Your task to perform on an android device: open app "Microsoft Outlook" (install if not already installed) Image 0: 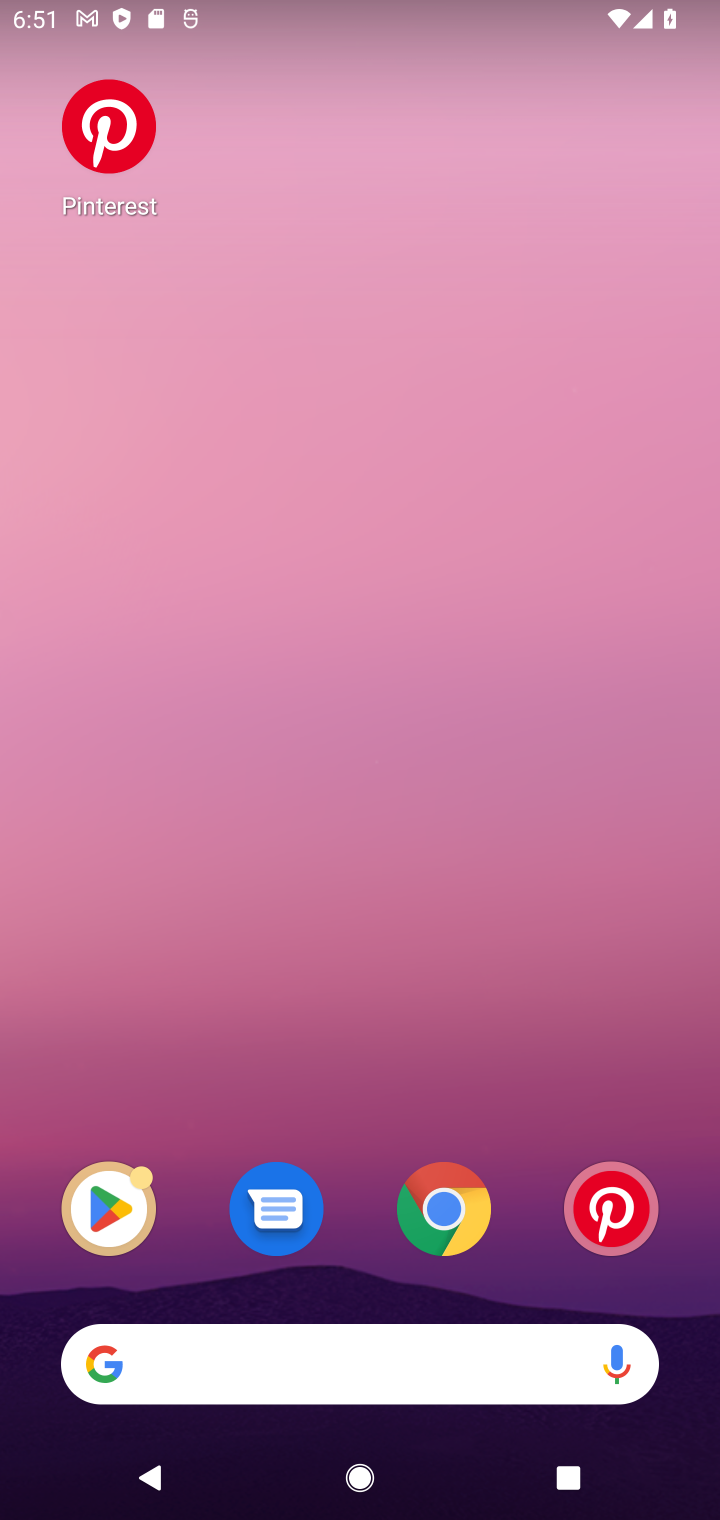
Step 0: drag from (392, 1274) to (370, 257)
Your task to perform on an android device: open app "Microsoft Outlook" (install if not already installed) Image 1: 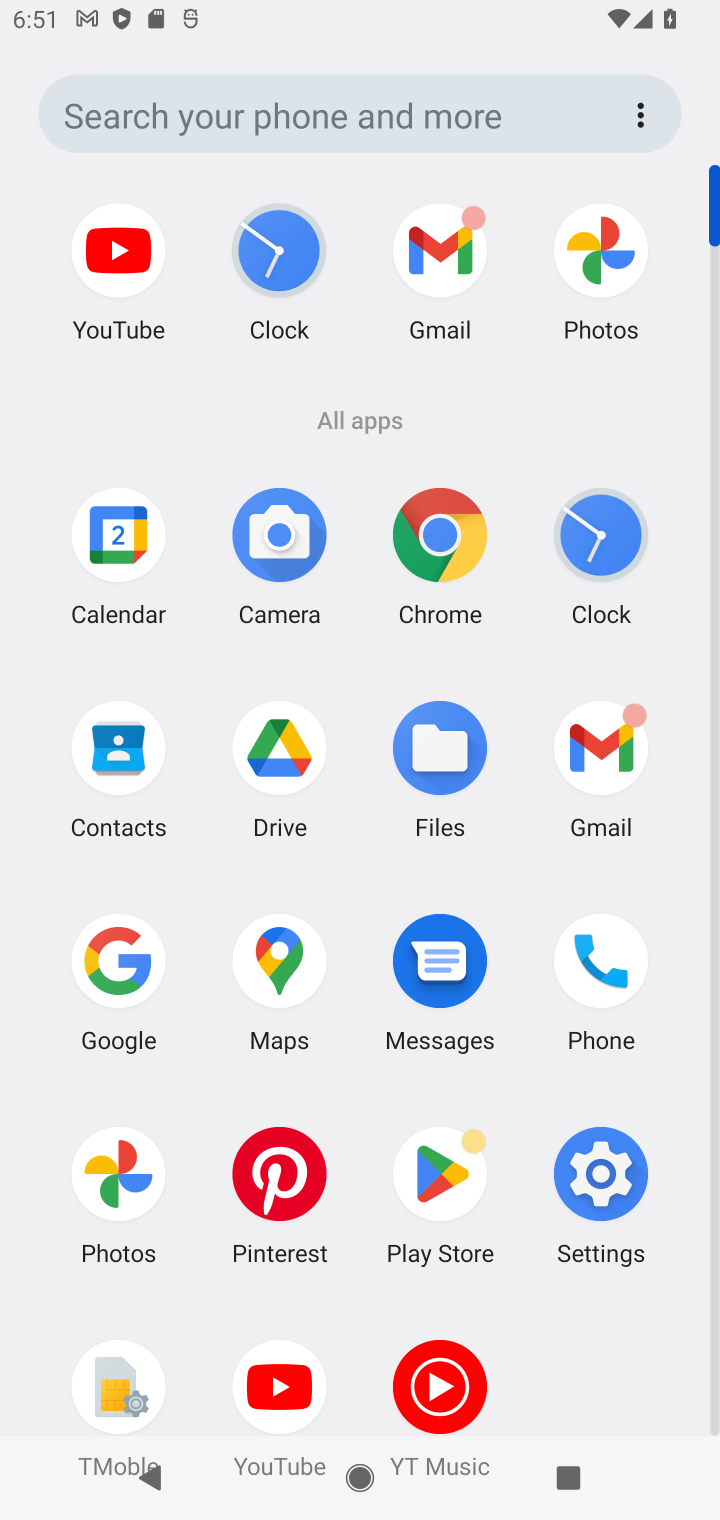
Step 1: click (445, 1189)
Your task to perform on an android device: open app "Microsoft Outlook" (install if not already installed) Image 2: 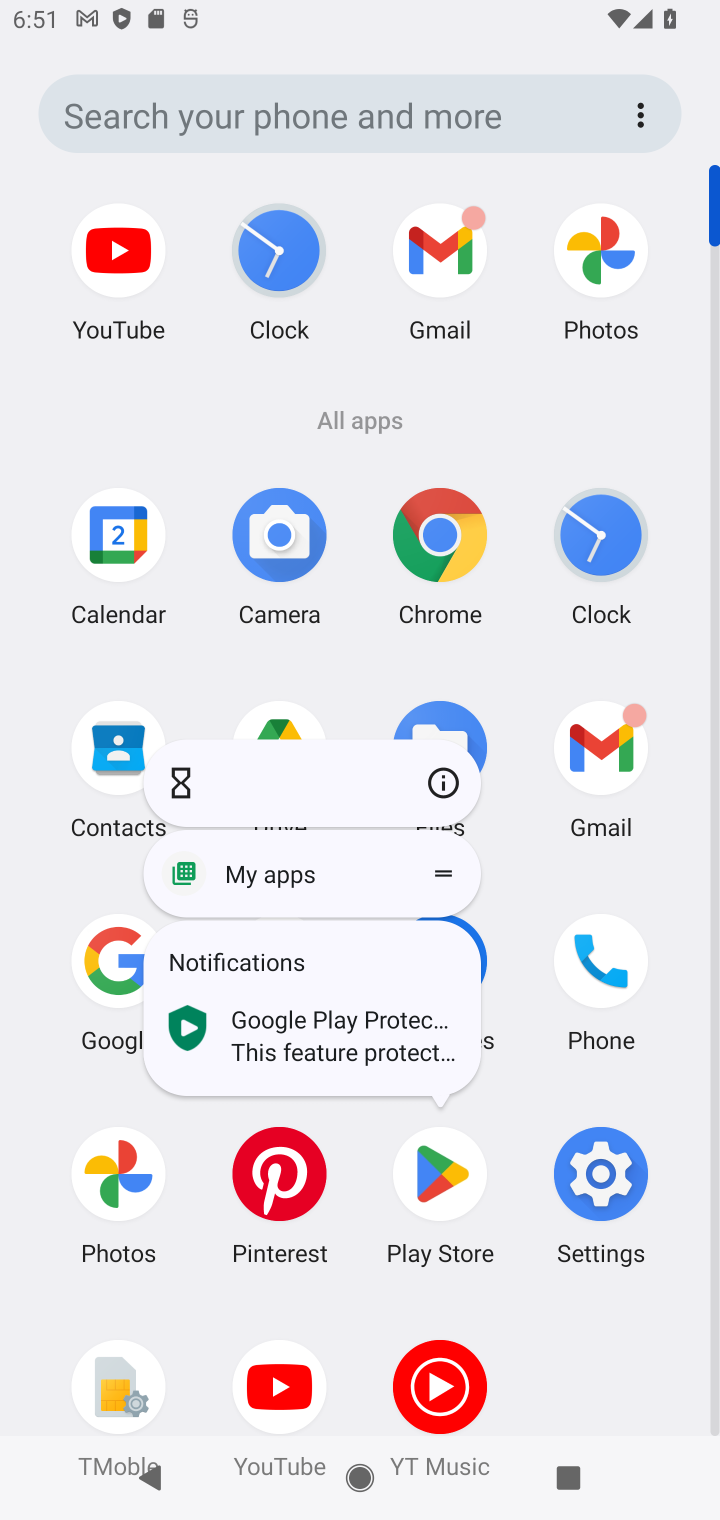
Step 2: click (424, 1190)
Your task to perform on an android device: open app "Microsoft Outlook" (install if not already installed) Image 3: 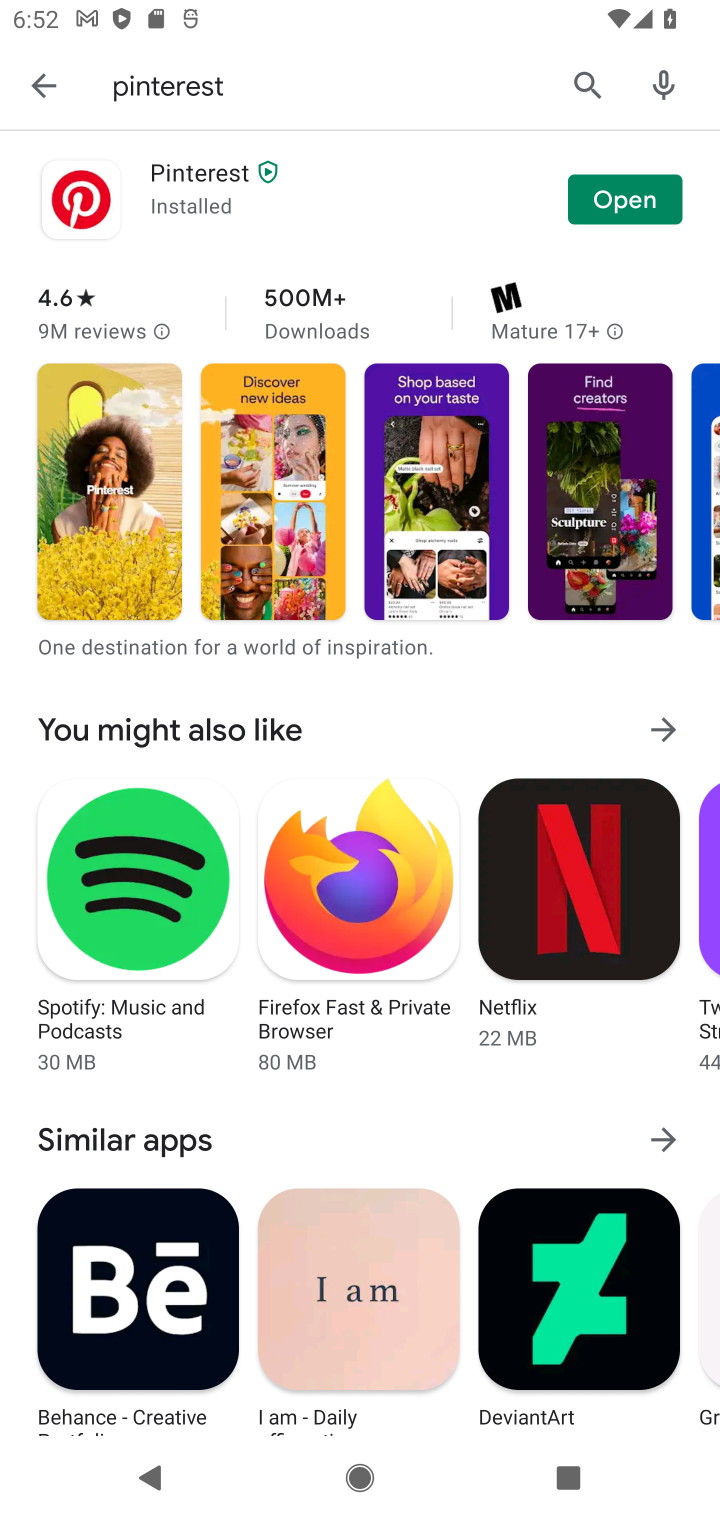
Step 3: click (585, 88)
Your task to perform on an android device: open app "Microsoft Outlook" (install if not already installed) Image 4: 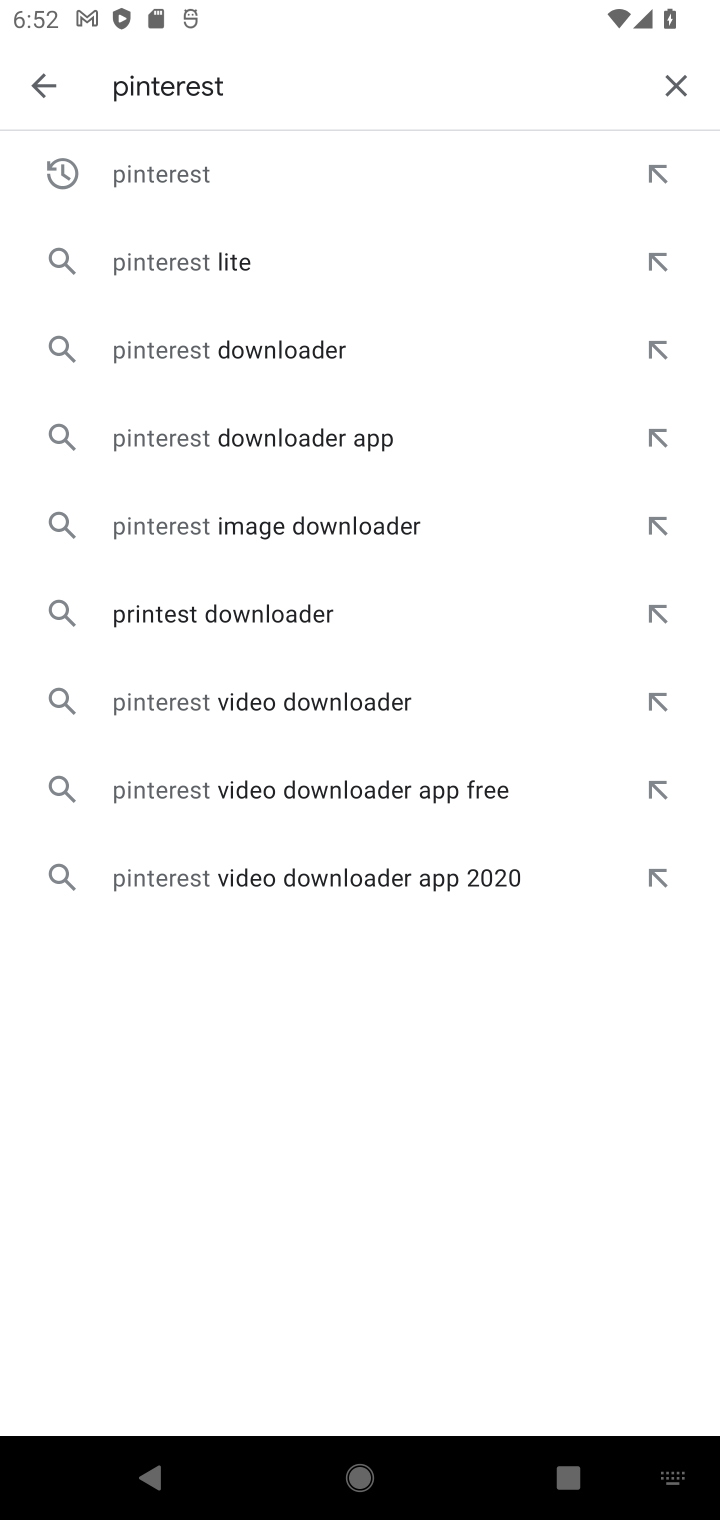
Step 4: click (675, 70)
Your task to perform on an android device: open app "Microsoft Outlook" (install if not already installed) Image 5: 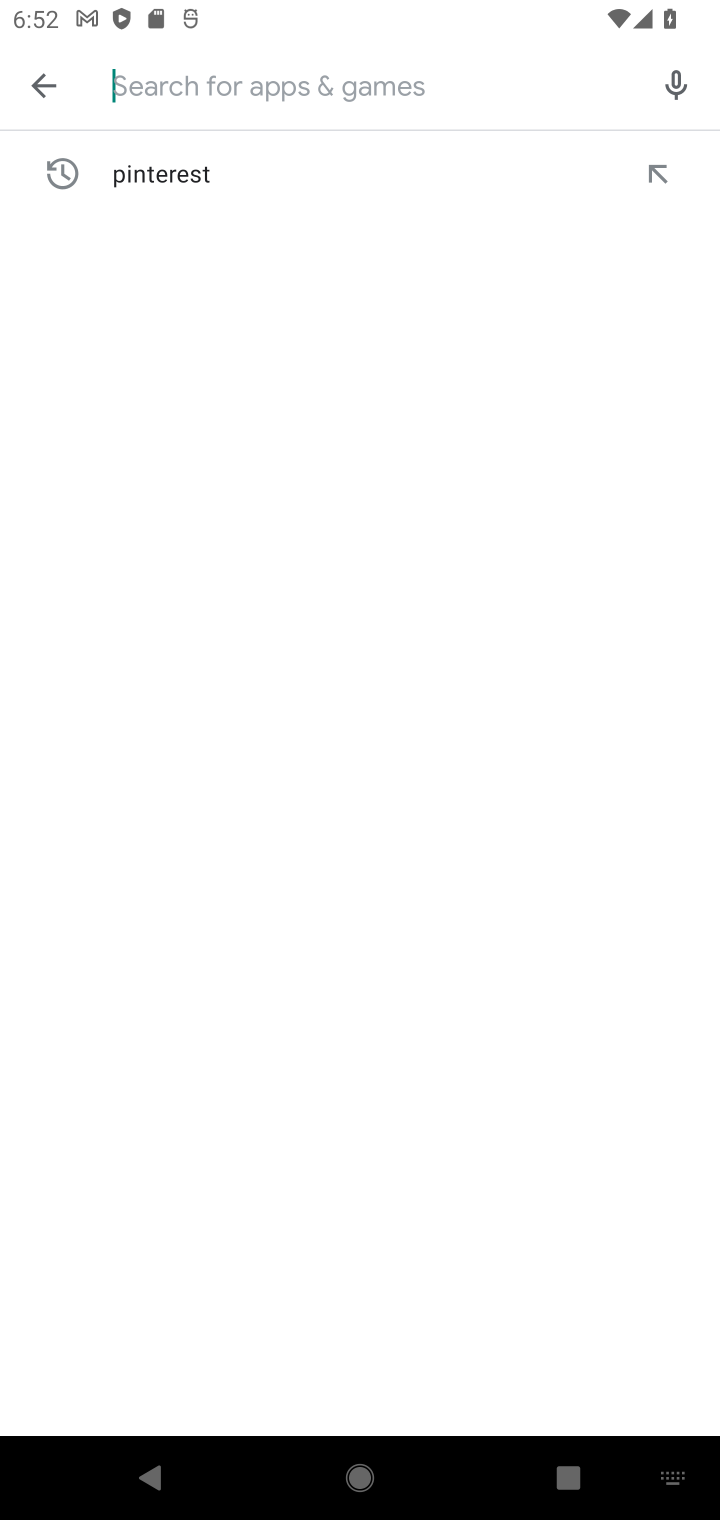
Step 5: type " "Microsoft Outlook"
Your task to perform on an android device: open app "Microsoft Outlook" (install if not already installed) Image 6: 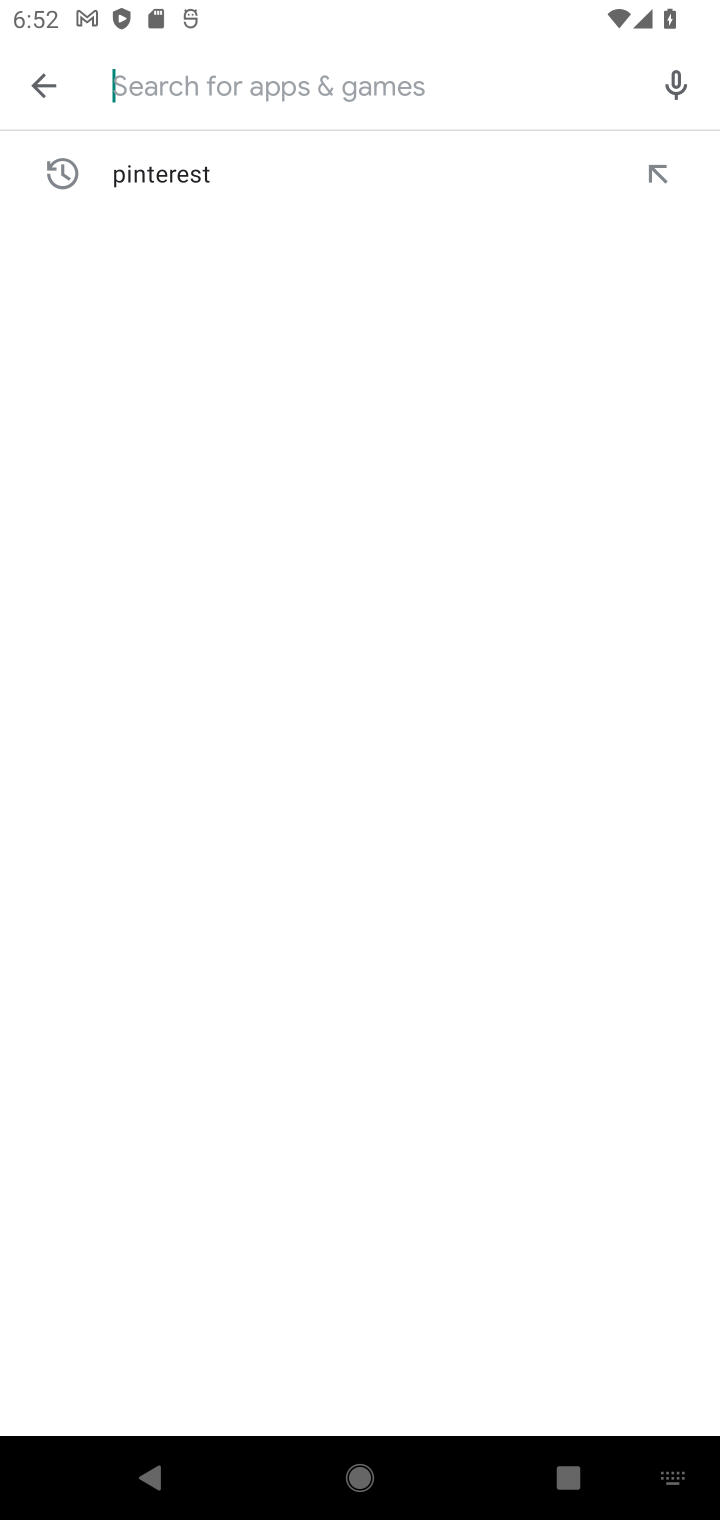
Step 6: type ""
Your task to perform on an android device: open app "Microsoft Outlook" (install if not already installed) Image 7: 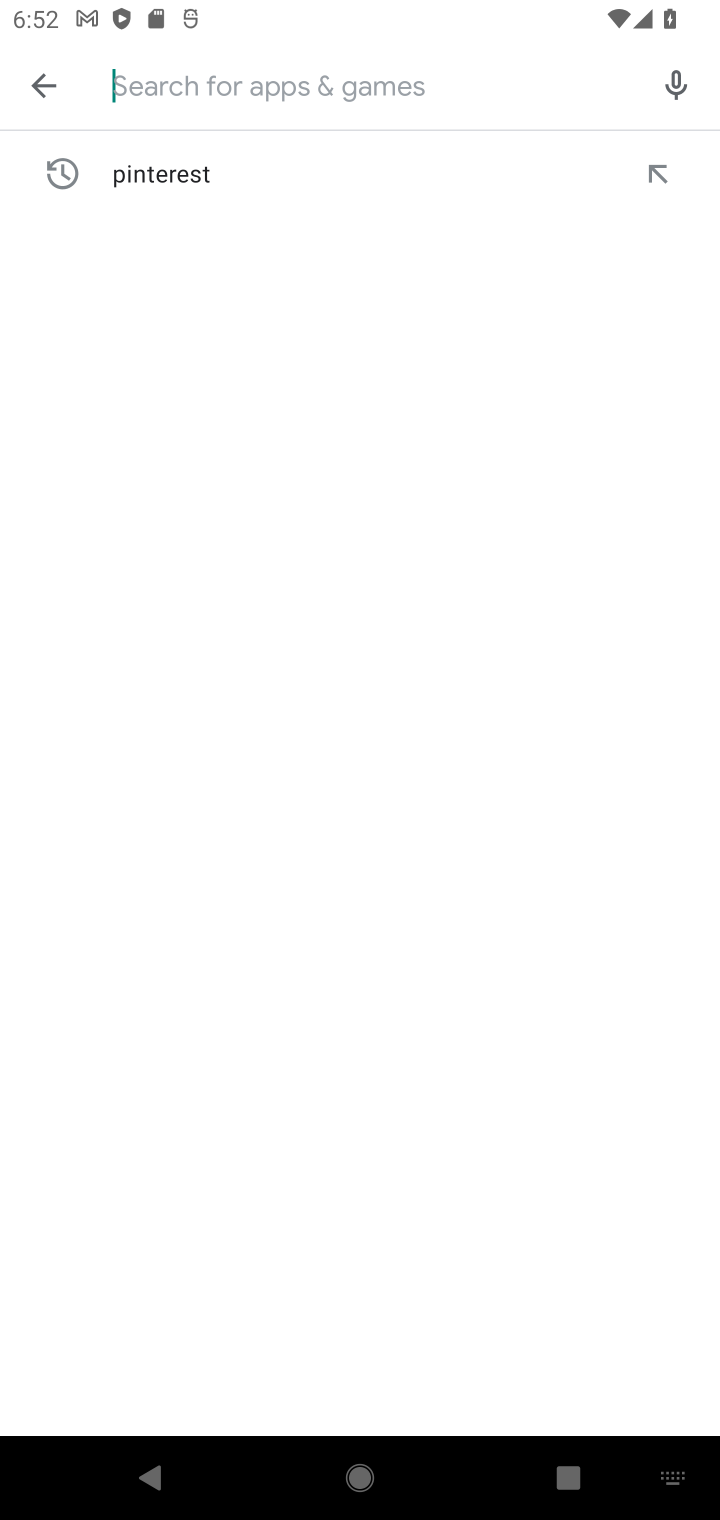
Step 7: type "Microsoft Outlook"
Your task to perform on an android device: open app "Microsoft Outlook" (install if not already installed) Image 8: 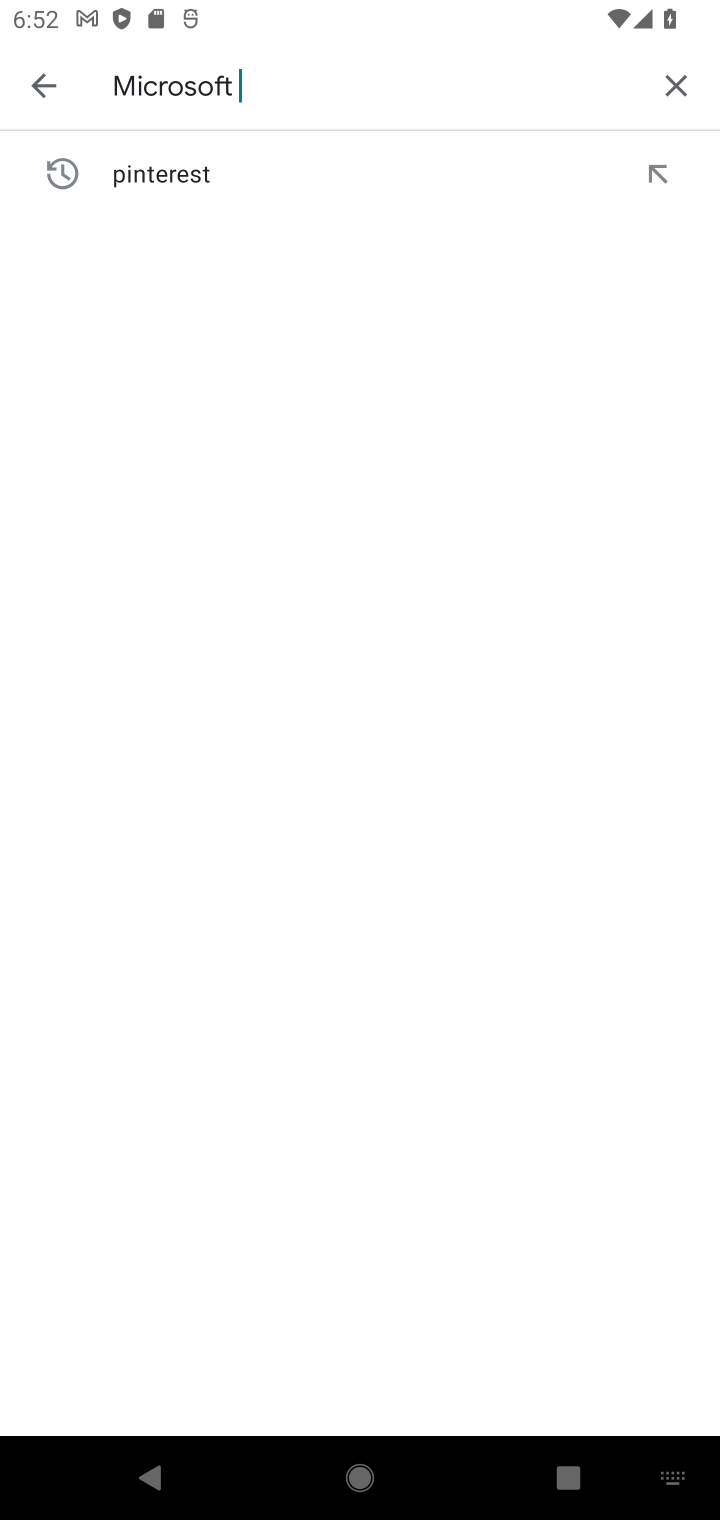
Step 8: type ""
Your task to perform on an android device: open app "Microsoft Outlook" (install if not already installed) Image 9: 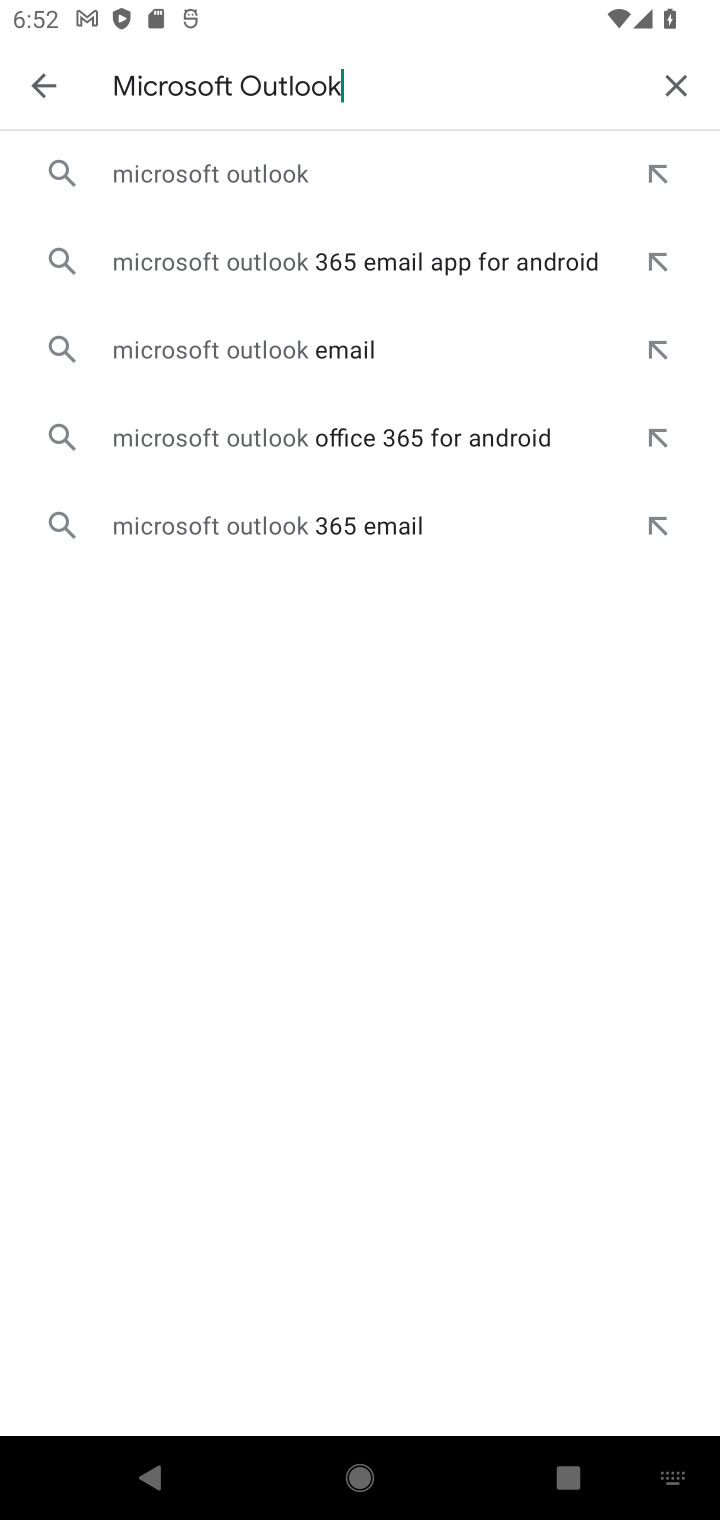
Step 9: click (274, 176)
Your task to perform on an android device: open app "Microsoft Outlook" (install if not already installed) Image 10: 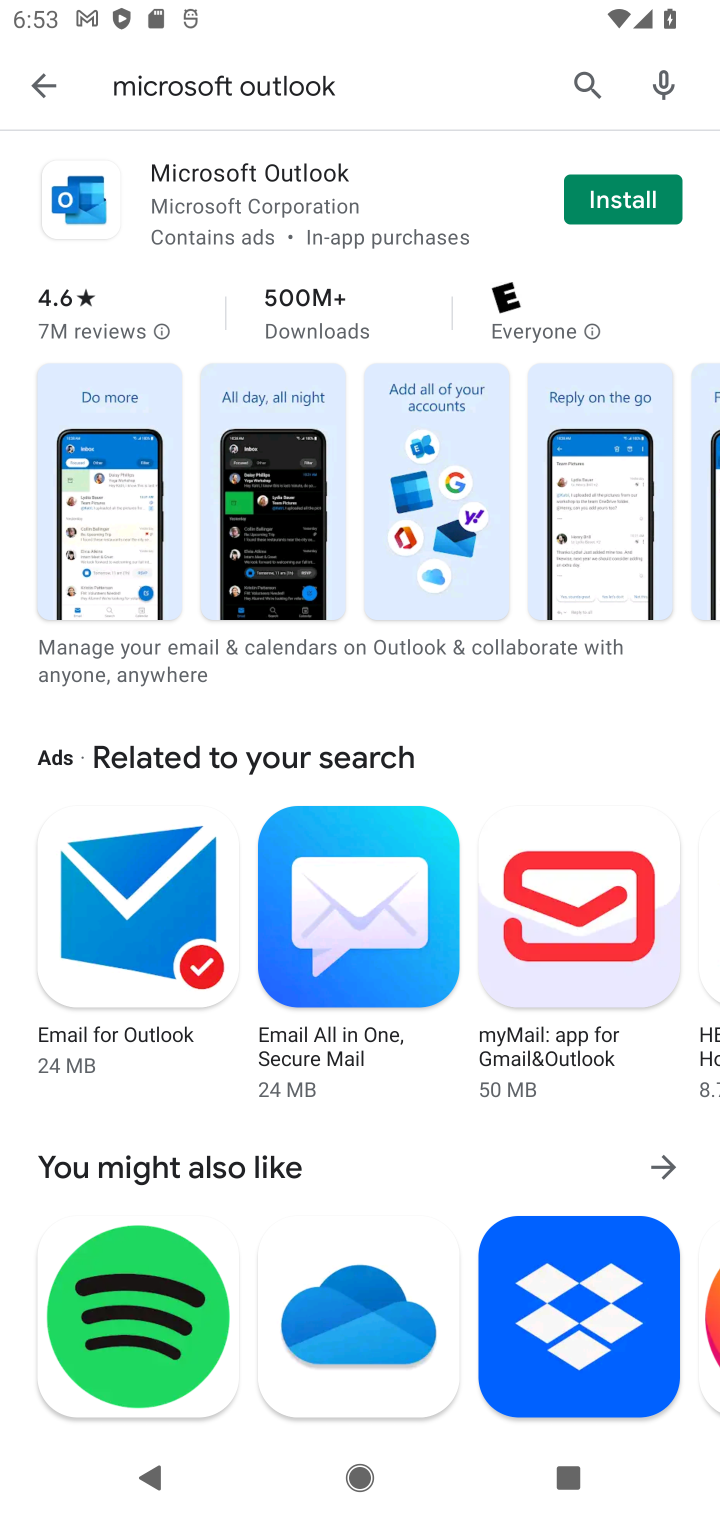
Step 10: click (640, 180)
Your task to perform on an android device: open app "Microsoft Outlook" (install if not already installed) Image 11: 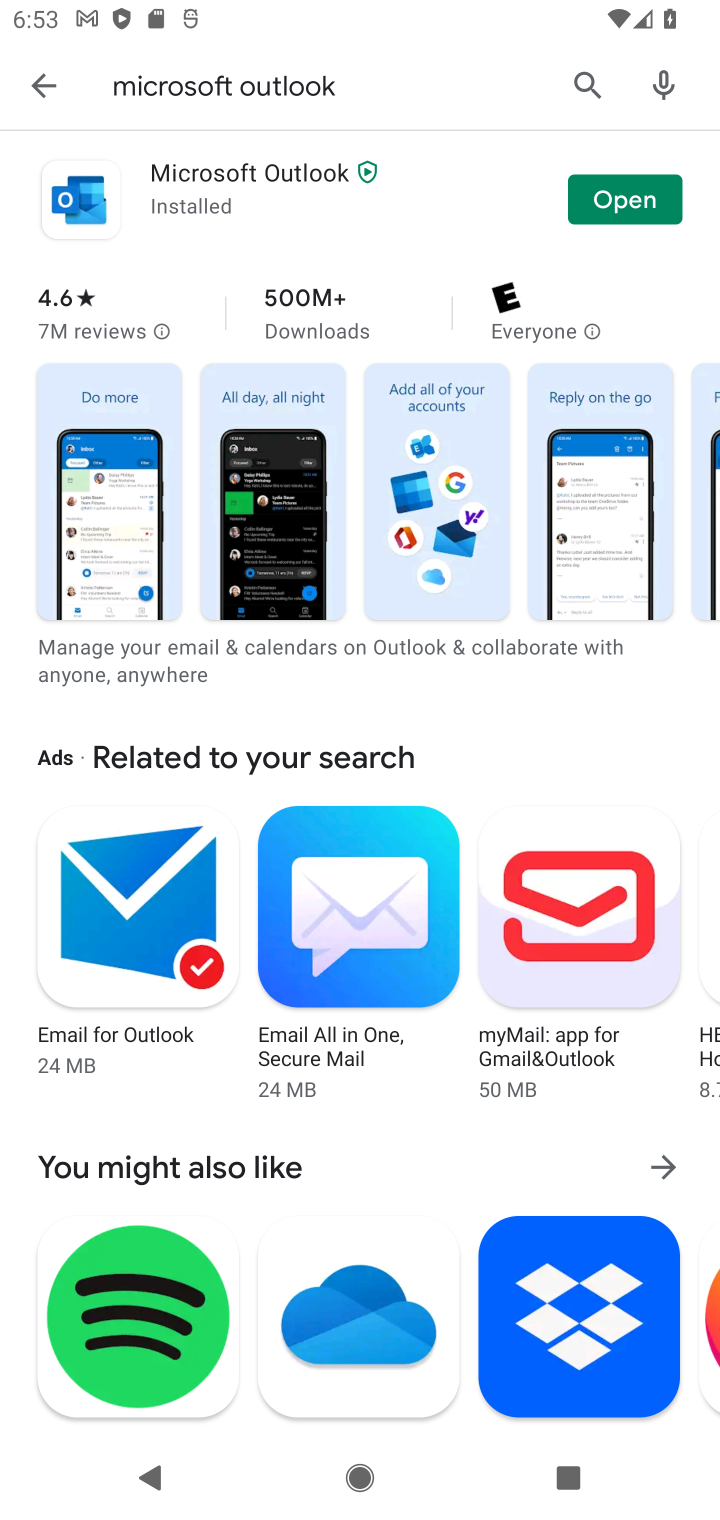
Step 11: task complete